Your task to perform on an android device: turn off notifications settings in the gmail app Image 0: 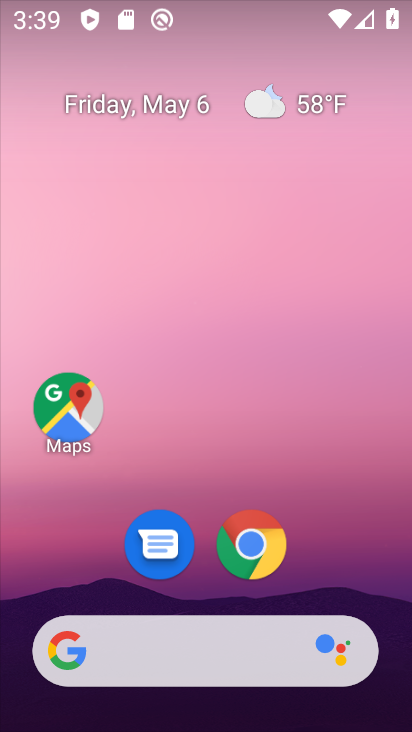
Step 0: drag from (71, 554) to (261, 66)
Your task to perform on an android device: turn off notifications settings in the gmail app Image 1: 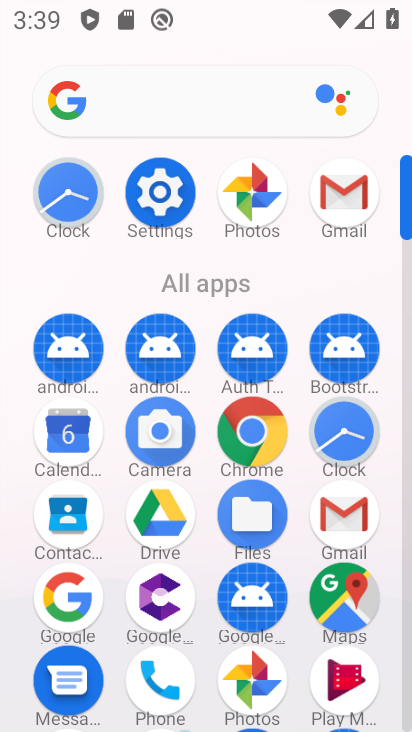
Step 1: click (321, 516)
Your task to perform on an android device: turn off notifications settings in the gmail app Image 2: 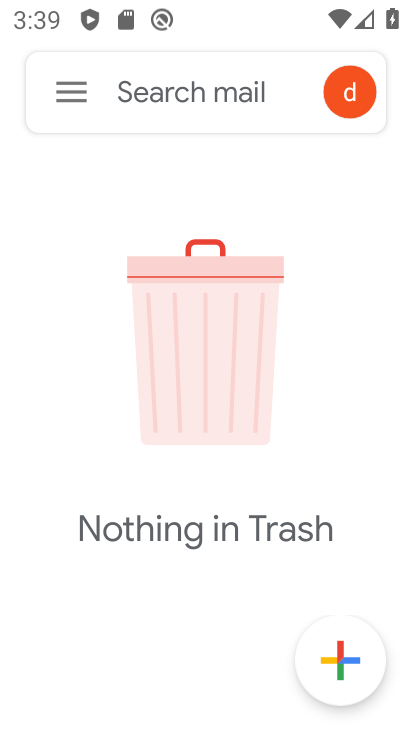
Step 2: click (85, 100)
Your task to perform on an android device: turn off notifications settings in the gmail app Image 3: 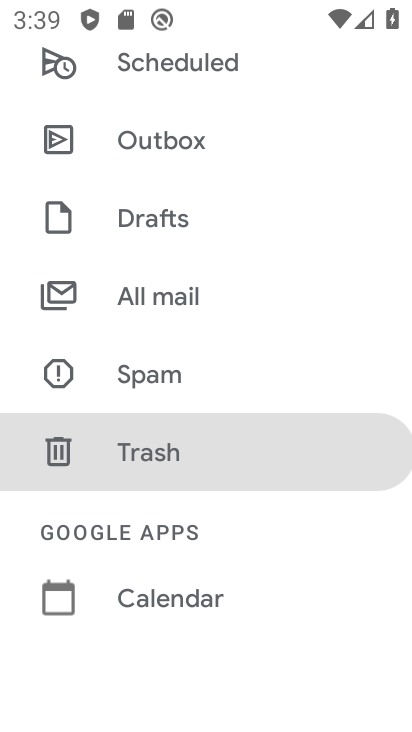
Step 3: drag from (157, 631) to (266, 155)
Your task to perform on an android device: turn off notifications settings in the gmail app Image 4: 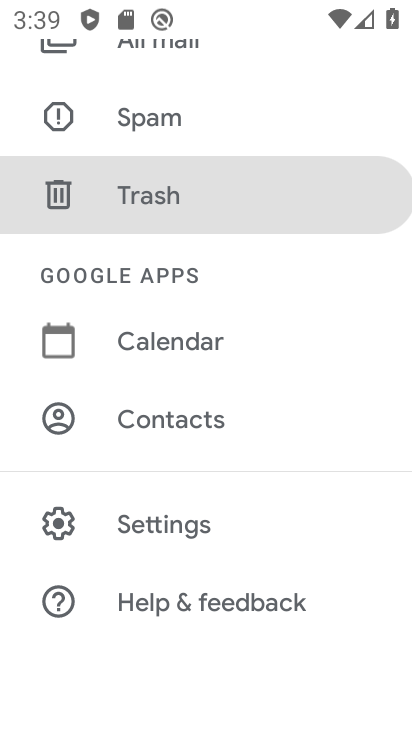
Step 4: click (171, 528)
Your task to perform on an android device: turn off notifications settings in the gmail app Image 5: 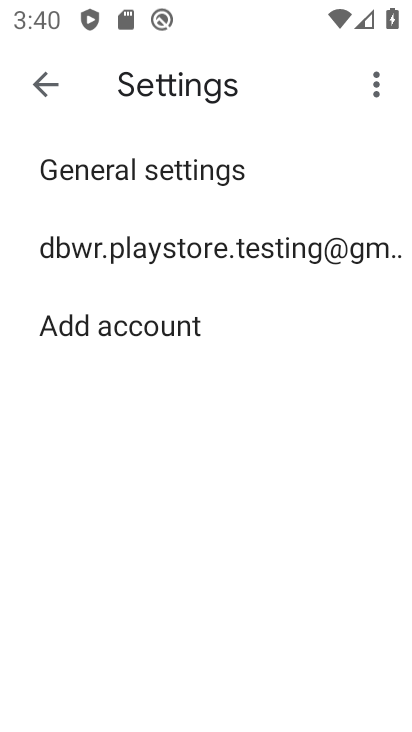
Step 5: click (235, 246)
Your task to perform on an android device: turn off notifications settings in the gmail app Image 6: 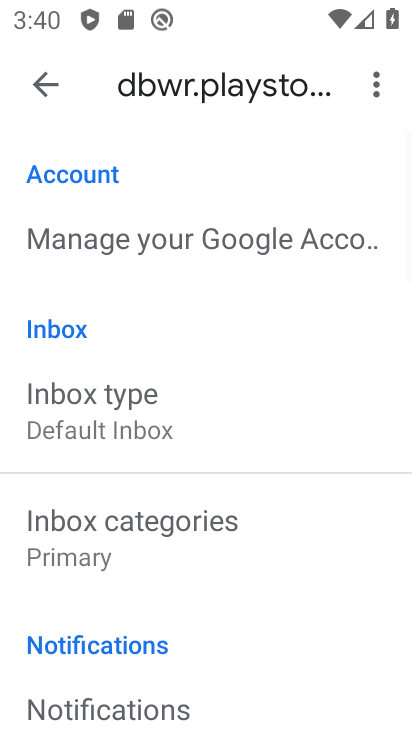
Step 6: drag from (136, 643) to (256, 125)
Your task to perform on an android device: turn off notifications settings in the gmail app Image 7: 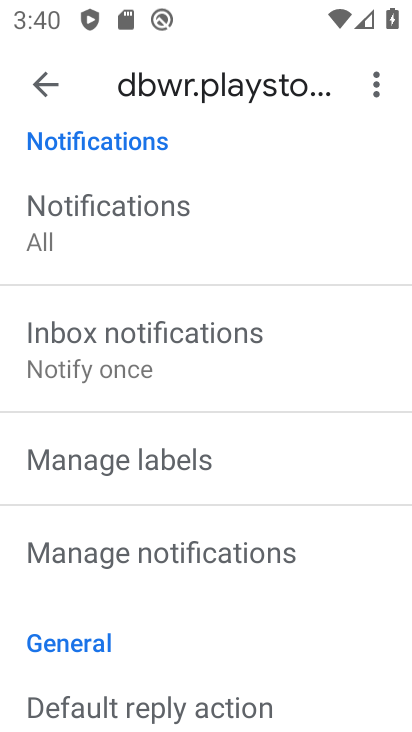
Step 7: click (208, 542)
Your task to perform on an android device: turn off notifications settings in the gmail app Image 8: 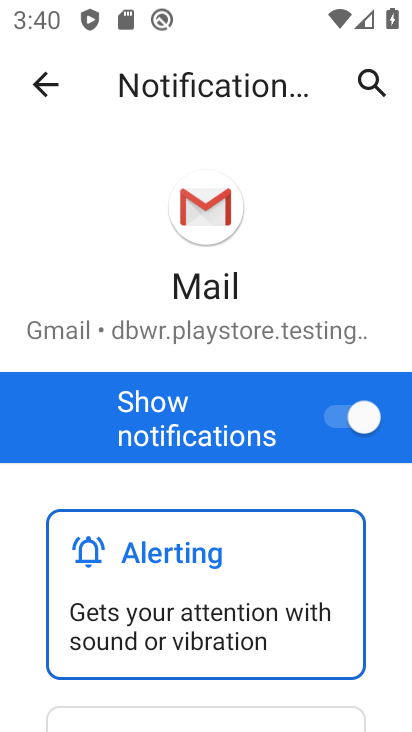
Step 8: click (325, 412)
Your task to perform on an android device: turn off notifications settings in the gmail app Image 9: 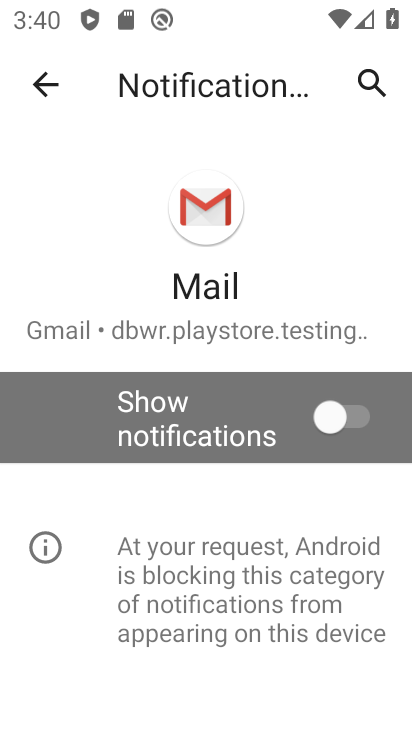
Step 9: task complete